Your task to perform on an android device: Open Android settings Image 0: 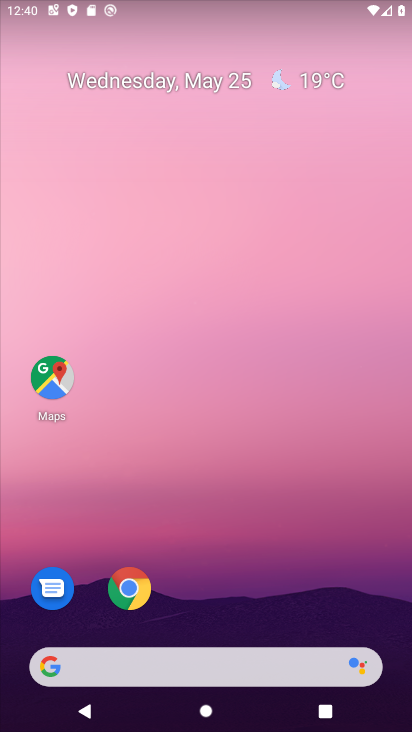
Step 0: drag from (203, 594) to (287, 170)
Your task to perform on an android device: Open Android settings Image 1: 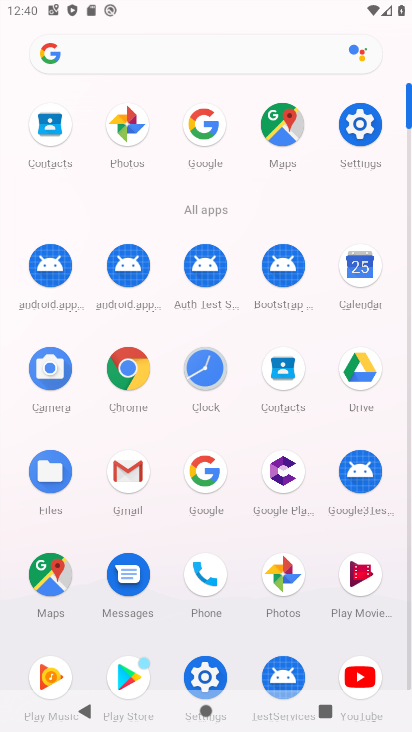
Step 1: drag from (210, 580) to (260, 350)
Your task to perform on an android device: Open Android settings Image 2: 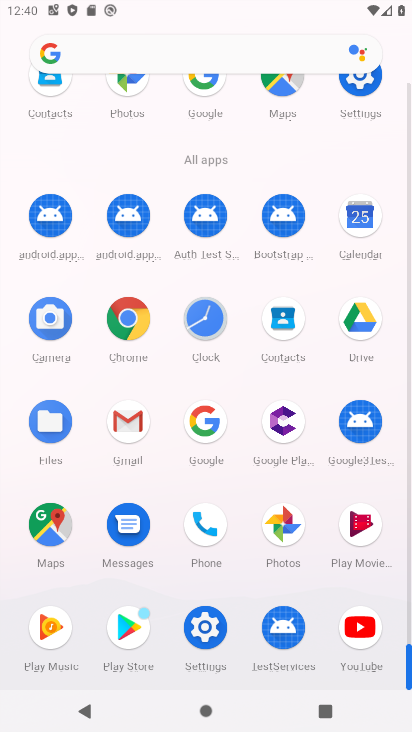
Step 2: click (207, 625)
Your task to perform on an android device: Open Android settings Image 3: 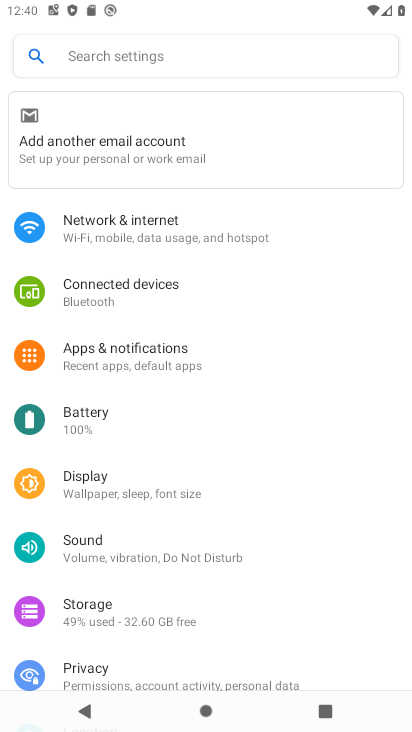
Step 3: task complete